Your task to perform on an android device: Open Google Chrome Image 0: 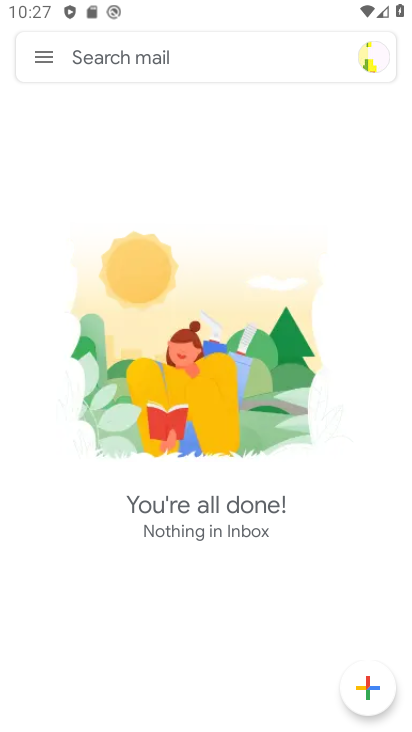
Step 0: press home button
Your task to perform on an android device: Open Google Chrome Image 1: 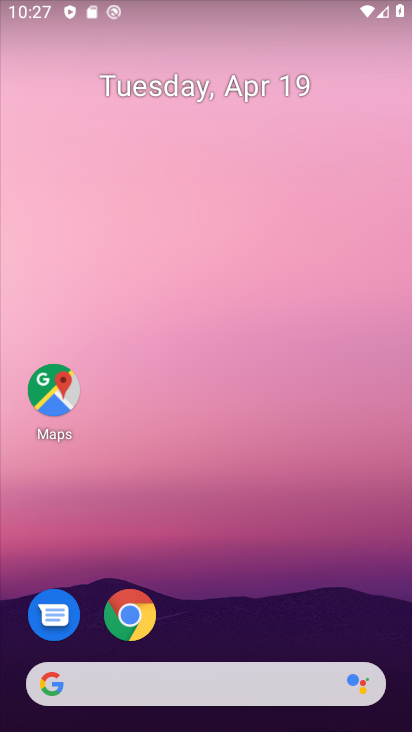
Step 1: click (140, 610)
Your task to perform on an android device: Open Google Chrome Image 2: 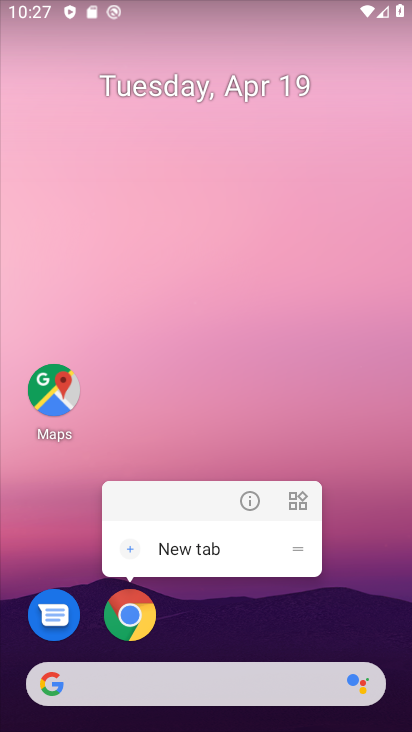
Step 2: click (140, 610)
Your task to perform on an android device: Open Google Chrome Image 3: 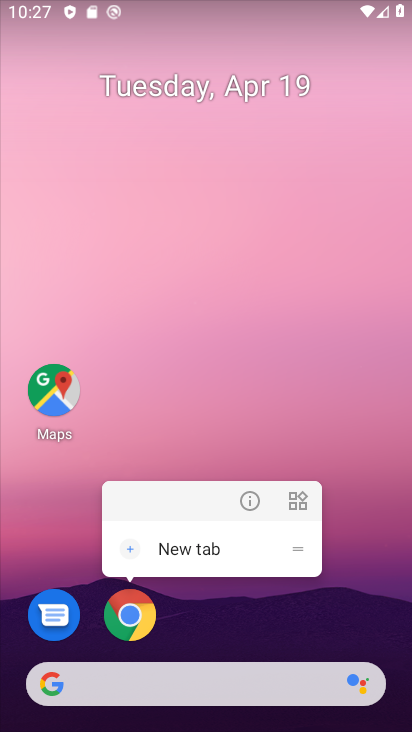
Step 3: click (140, 610)
Your task to perform on an android device: Open Google Chrome Image 4: 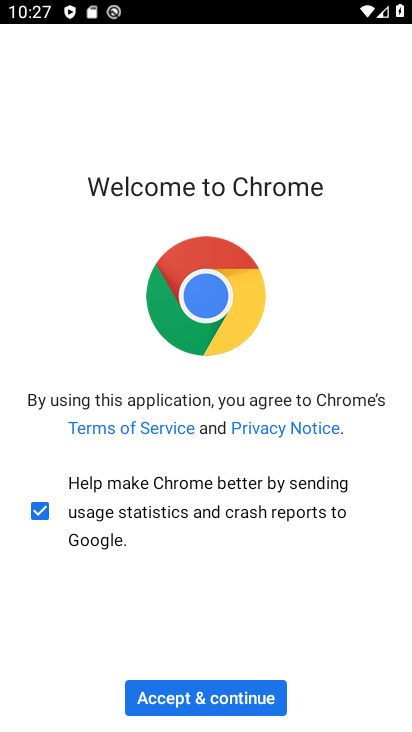
Step 4: click (194, 688)
Your task to perform on an android device: Open Google Chrome Image 5: 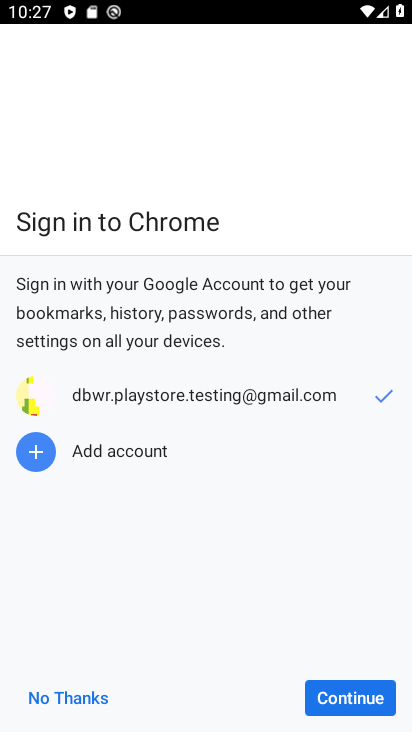
Step 5: click (65, 693)
Your task to perform on an android device: Open Google Chrome Image 6: 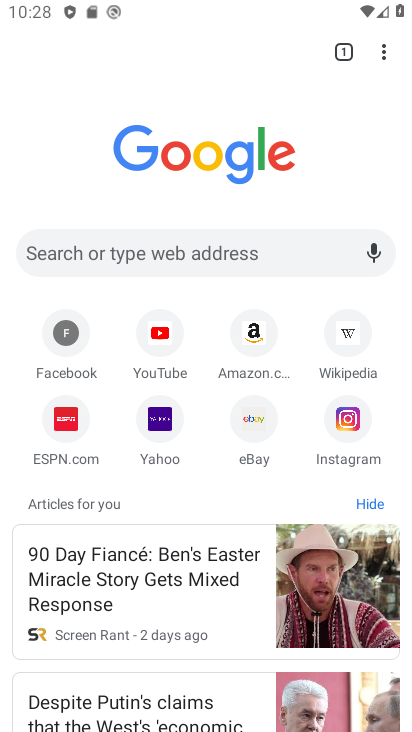
Step 6: task complete